Your task to perform on an android device: Go to notification settings Image 0: 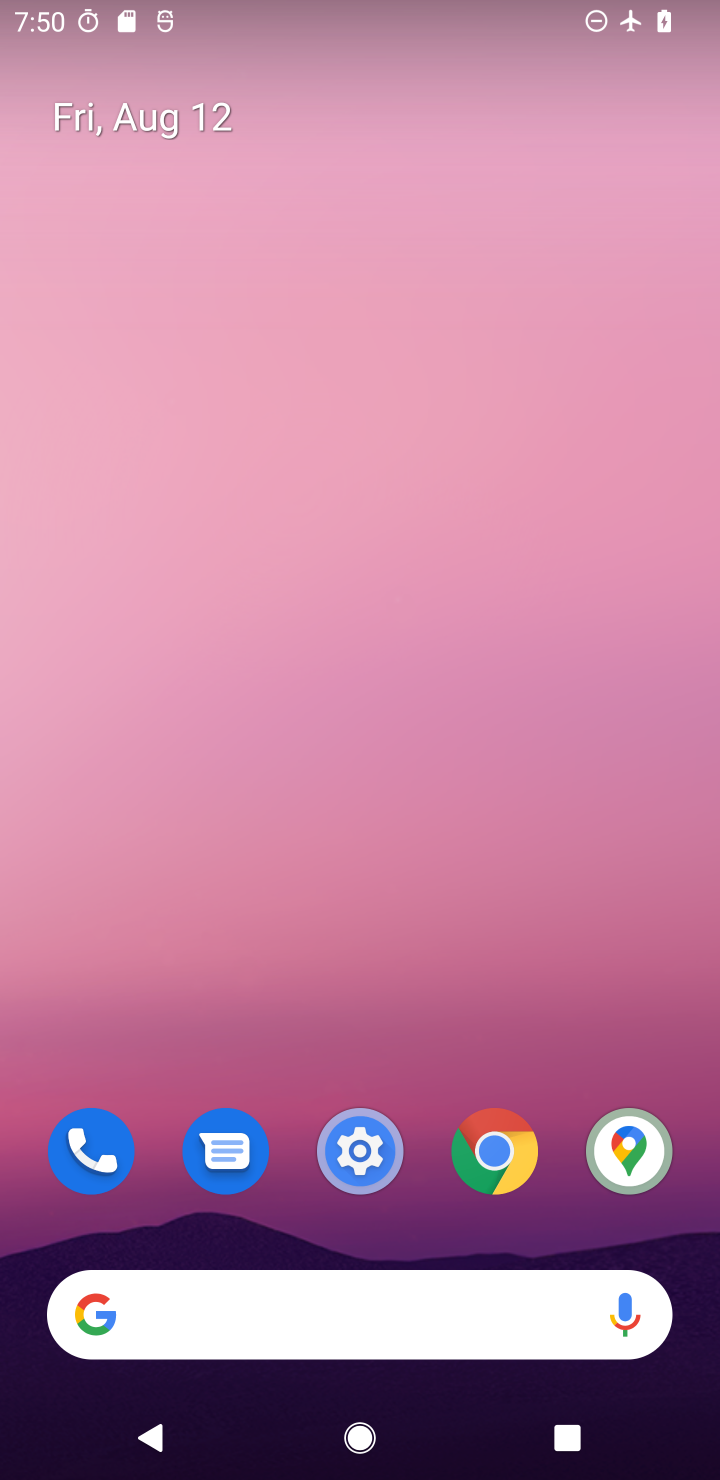
Step 0: drag from (390, 972) to (427, 121)
Your task to perform on an android device: Go to notification settings Image 1: 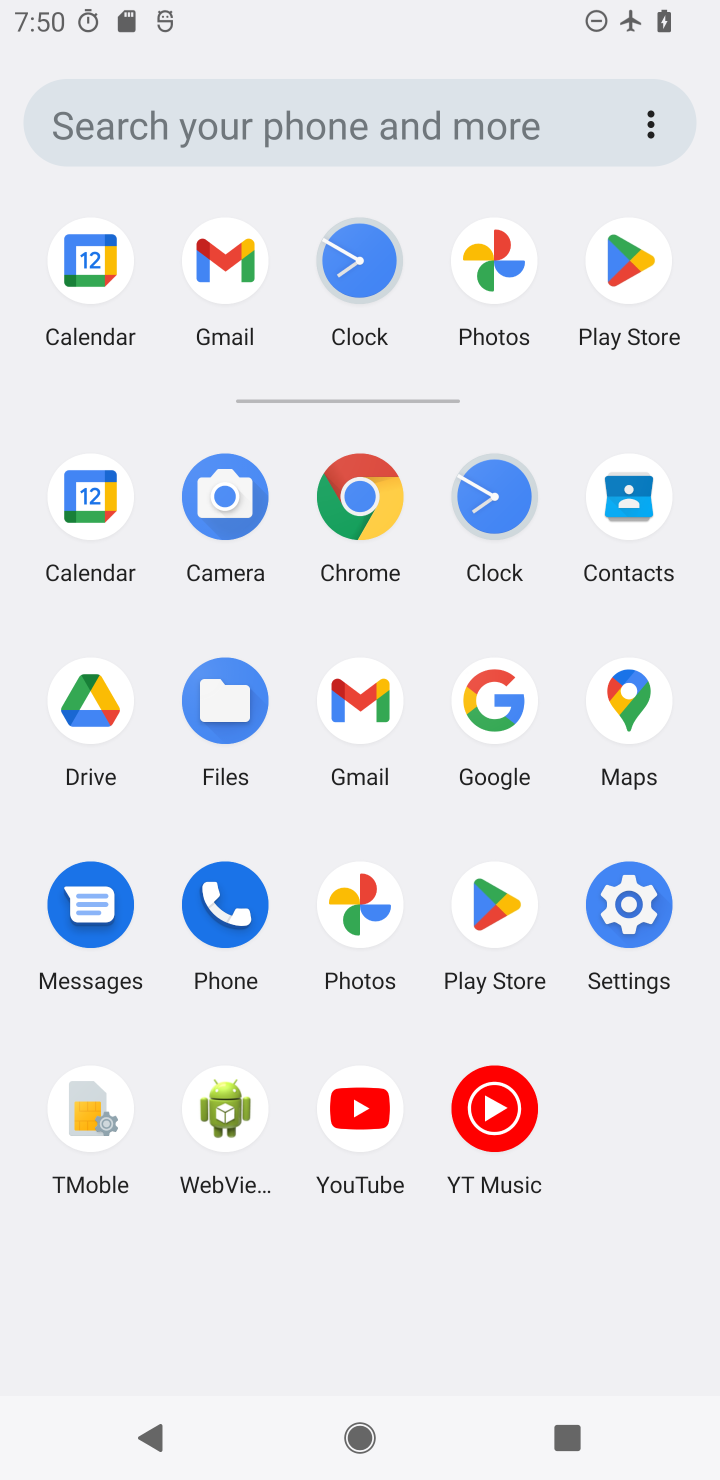
Step 1: click (639, 893)
Your task to perform on an android device: Go to notification settings Image 2: 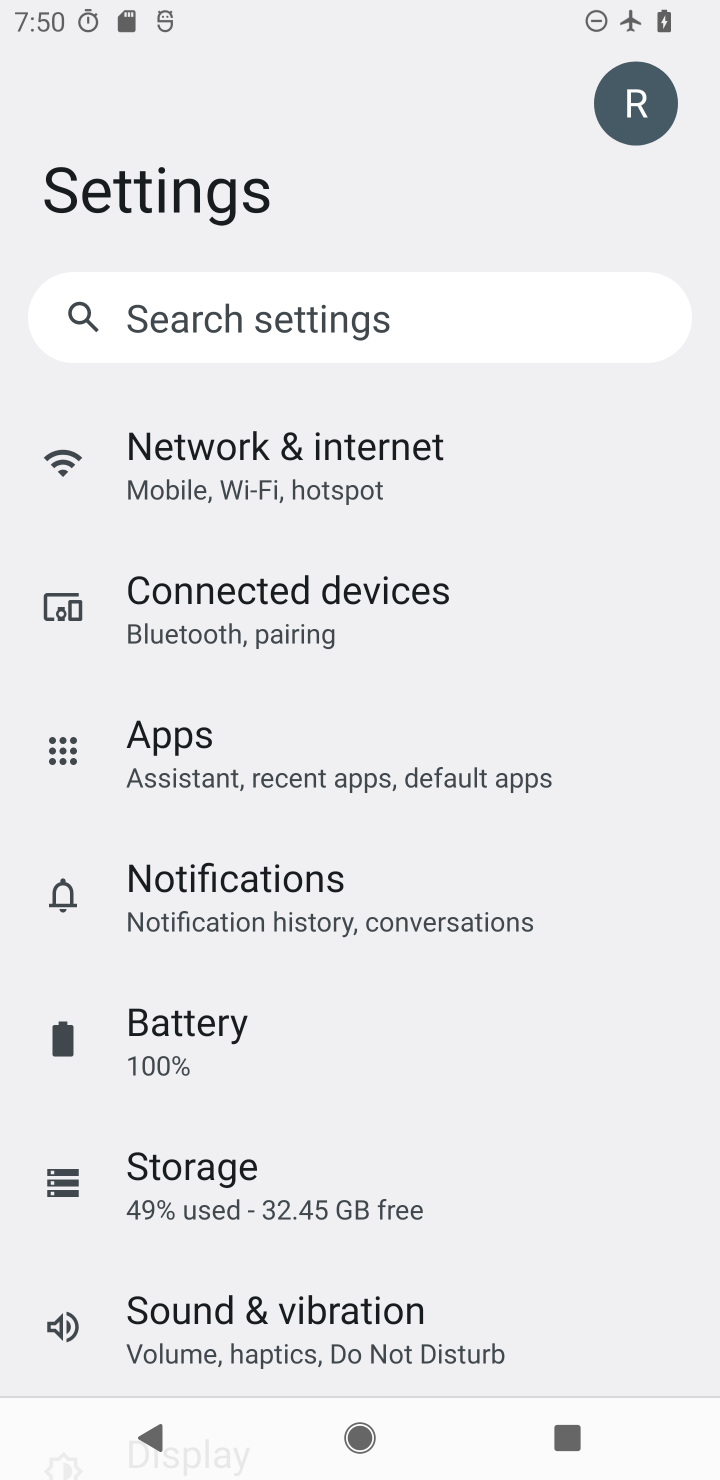
Step 2: click (343, 894)
Your task to perform on an android device: Go to notification settings Image 3: 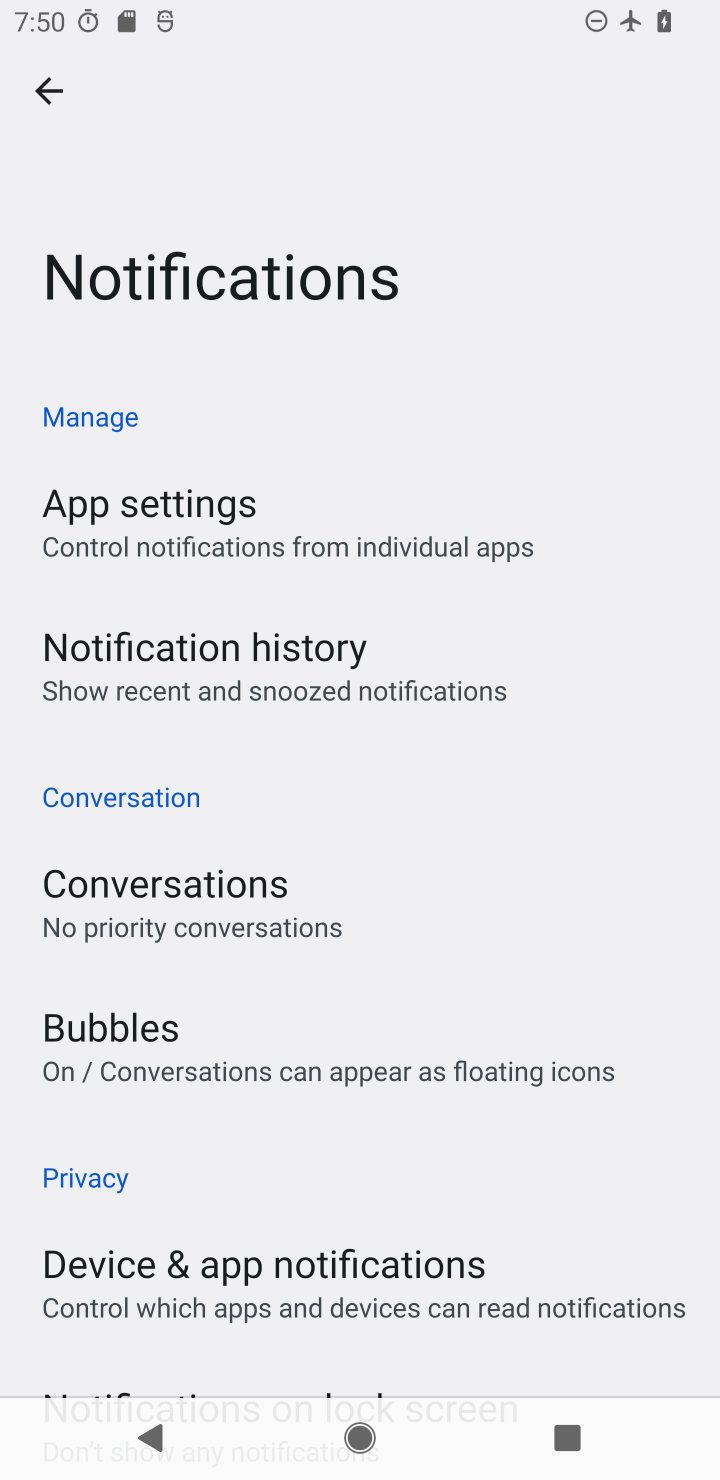
Step 3: task complete